Your task to perform on an android device: Open Wikipedia Image 0: 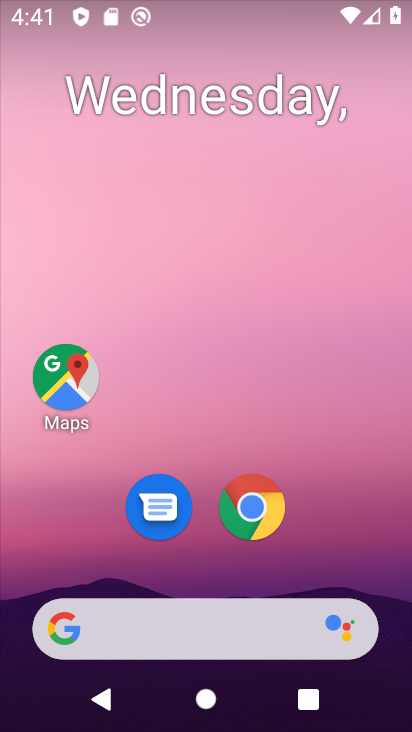
Step 0: click (263, 527)
Your task to perform on an android device: Open Wikipedia Image 1: 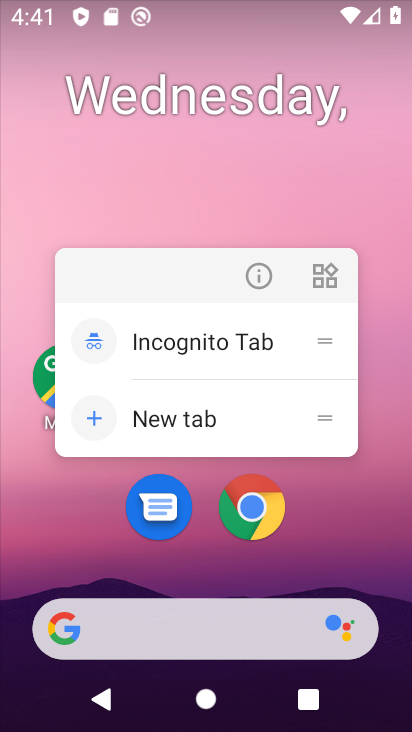
Step 1: click (264, 527)
Your task to perform on an android device: Open Wikipedia Image 2: 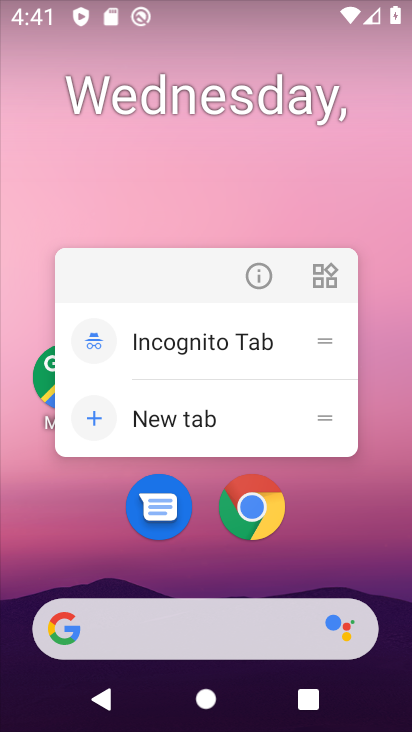
Step 2: click (262, 516)
Your task to perform on an android device: Open Wikipedia Image 3: 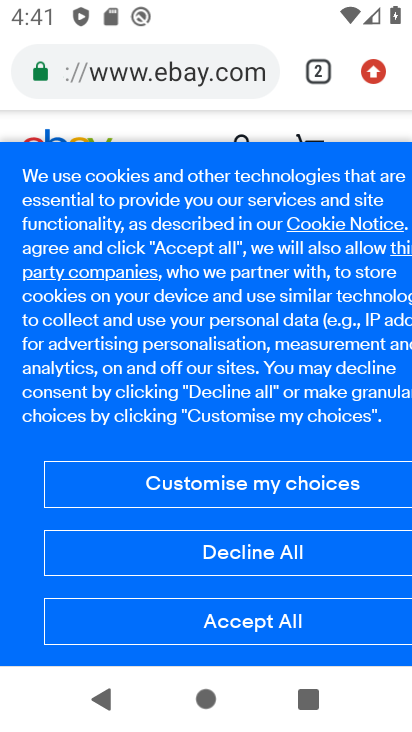
Step 3: drag from (382, 79) to (357, 209)
Your task to perform on an android device: Open Wikipedia Image 4: 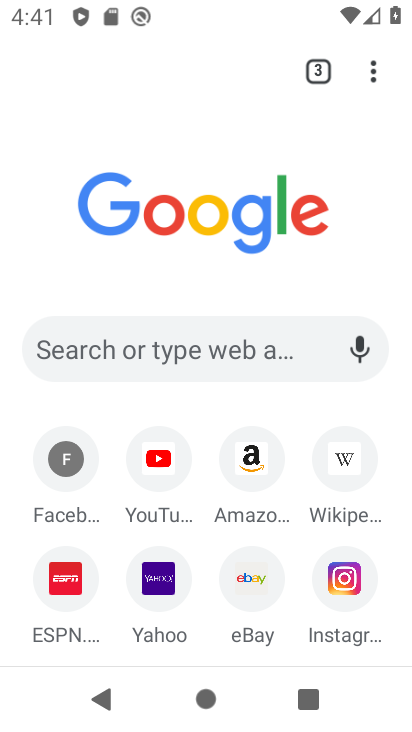
Step 4: click (341, 496)
Your task to perform on an android device: Open Wikipedia Image 5: 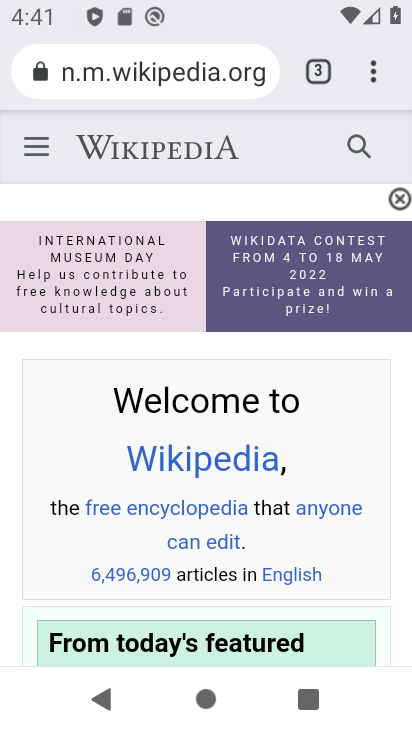
Step 5: task complete